Your task to perform on an android device: turn on airplane mode Image 0: 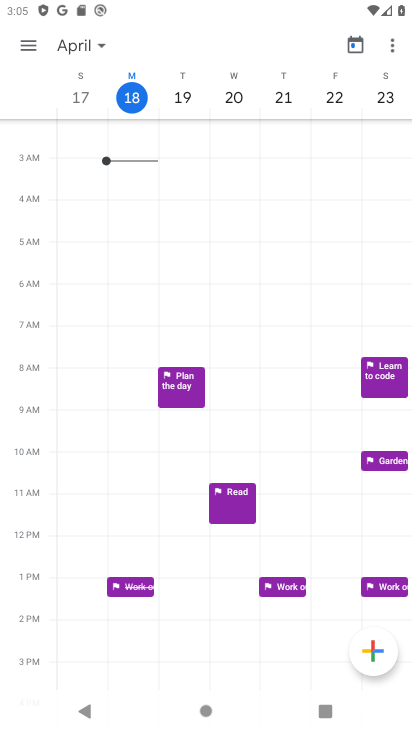
Step 0: drag from (350, 0) to (345, 319)
Your task to perform on an android device: turn on airplane mode Image 1: 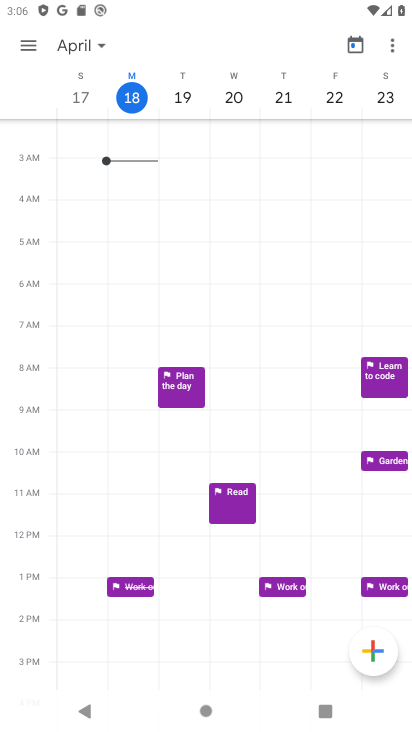
Step 1: drag from (373, 1) to (392, 345)
Your task to perform on an android device: turn on airplane mode Image 2: 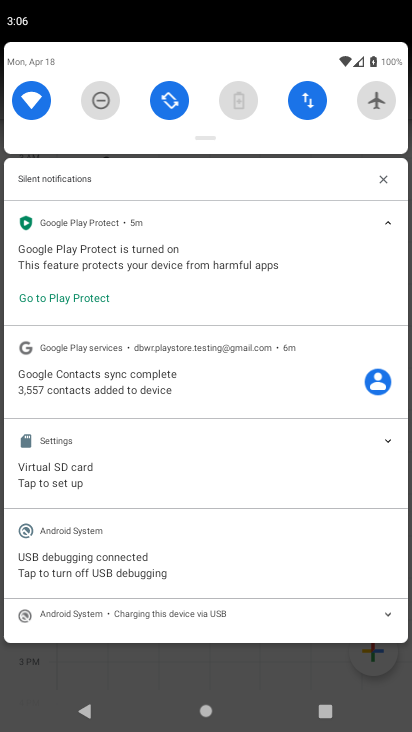
Step 2: click (369, 103)
Your task to perform on an android device: turn on airplane mode Image 3: 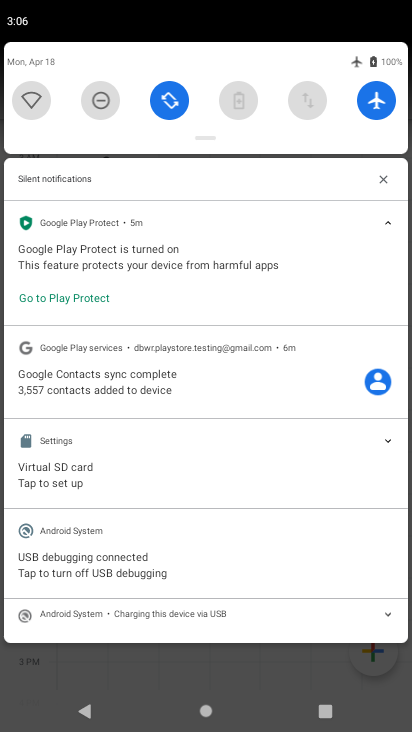
Step 3: task complete